Your task to perform on an android device: Search for Italian restaurants on Maps Image 0: 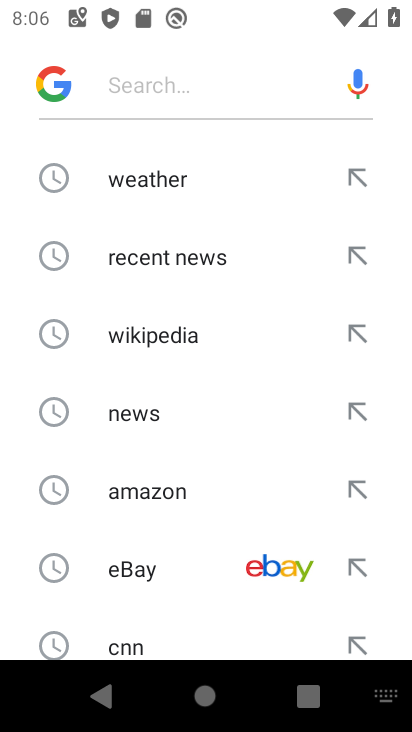
Step 0: press back button
Your task to perform on an android device: Search for Italian restaurants on Maps Image 1: 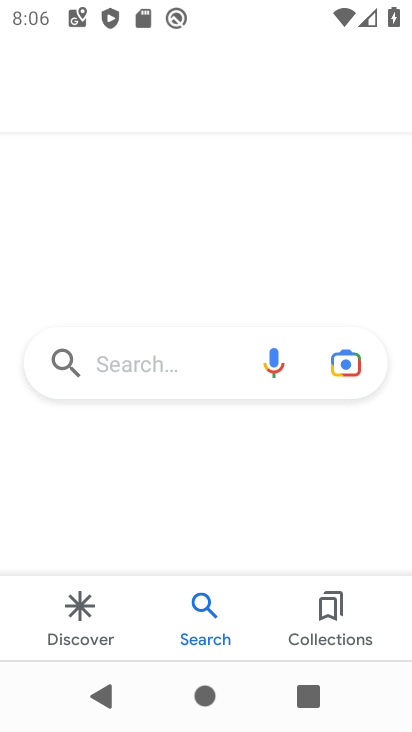
Step 1: press back button
Your task to perform on an android device: Search for Italian restaurants on Maps Image 2: 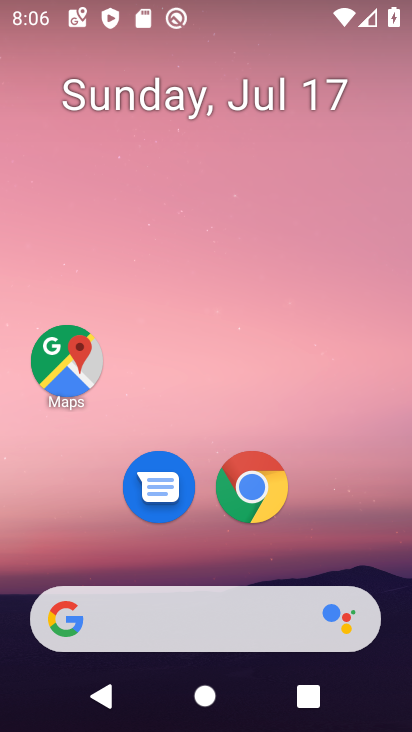
Step 2: click (59, 365)
Your task to perform on an android device: Search for Italian restaurants on Maps Image 3: 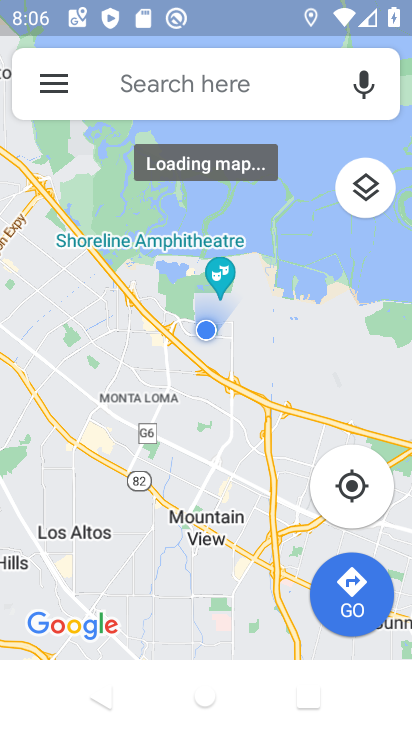
Step 3: click (251, 78)
Your task to perform on an android device: Search for Italian restaurants on Maps Image 4: 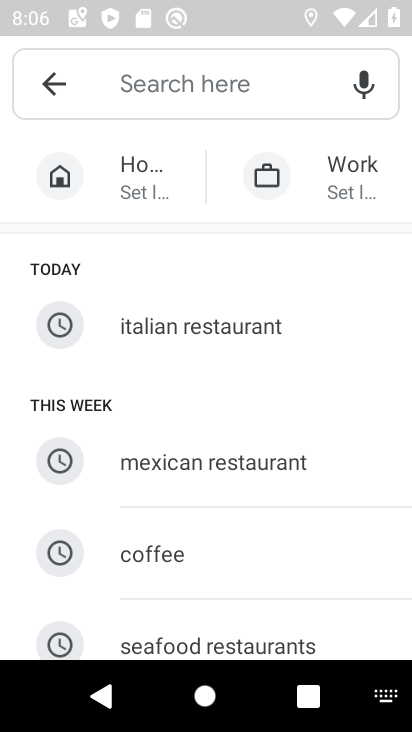
Step 4: click (187, 329)
Your task to perform on an android device: Search for Italian restaurants on Maps Image 5: 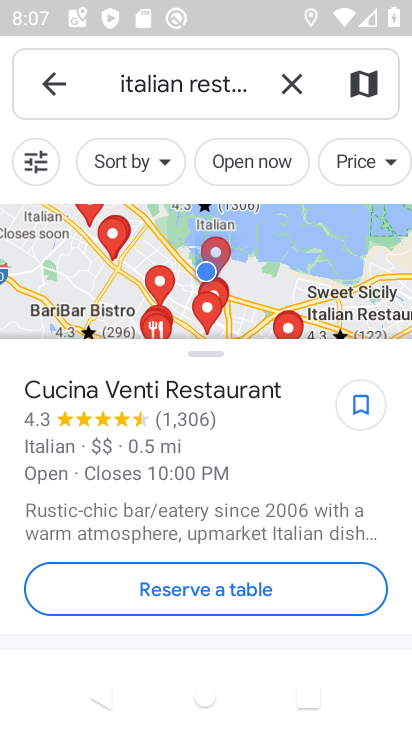
Step 5: task complete